Your task to perform on an android device: Add "bose soundlink" to the cart on amazon.com, then select checkout. Image 0: 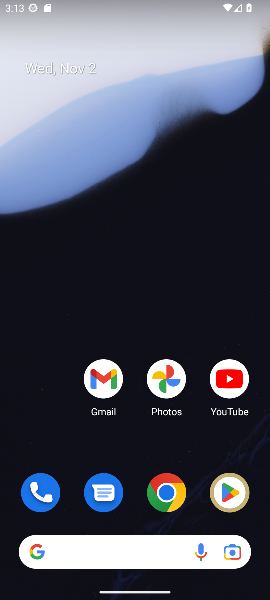
Step 0: click (167, 493)
Your task to perform on an android device: Add "bose soundlink" to the cart on amazon.com, then select checkout. Image 1: 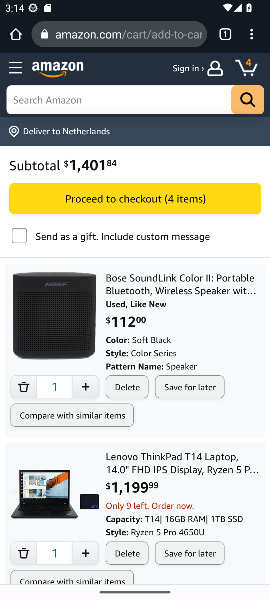
Step 1: click (122, 21)
Your task to perform on an android device: Add "bose soundlink" to the cart on amazon.com, then select checkout. Image 2: 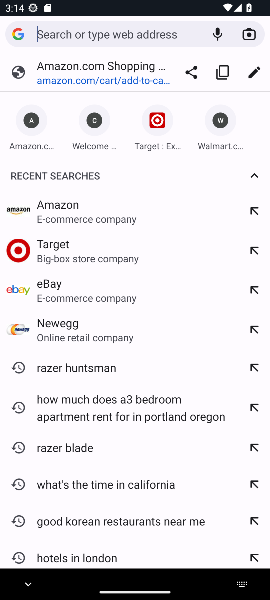
Step 2: click (66, 202)
Your task to perform on an android device: Add "bose soundlink" to the cart on amazon.com, then select checkout. Image 3: 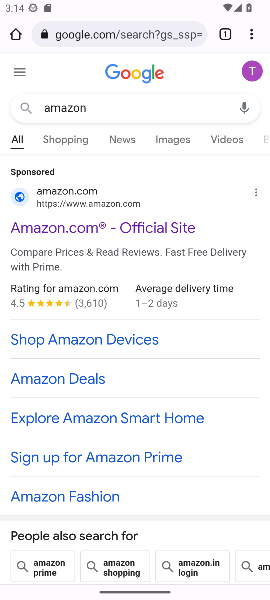
Step 3: click (53, 232)
Your task to perform on an android device: Add "bose soundlink" to the cart on amazon.com, then select checkout. Image 4: 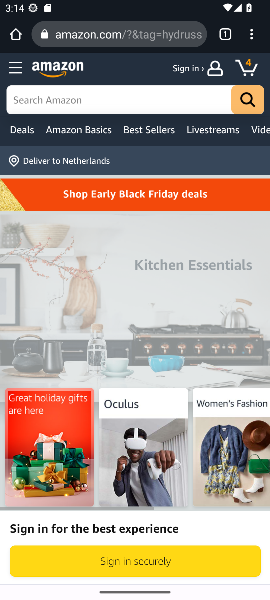
Step 4: click (90, 95)
Your task to perform on an android device: Add "bose soundlink" to the cart on amazon.com, then select checkout. Image 5: 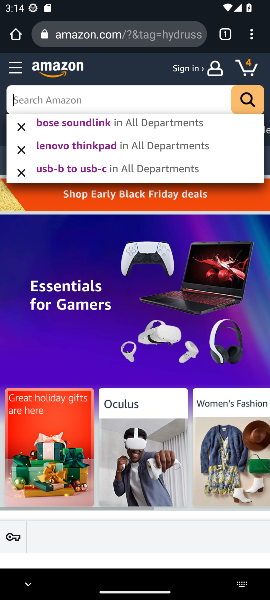
Step 5: click (68, 121)
Your task to perform on an android device: Add "bose soundlink" to the cart on amazon.com, then select checkout. Image 6: 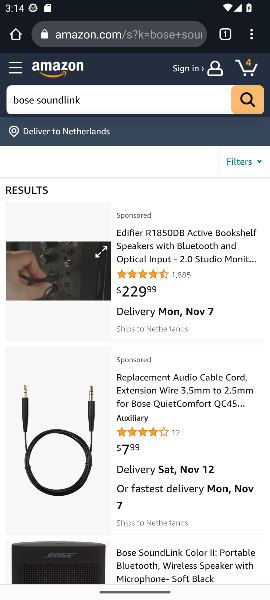
Step 6: drag from (163, 452) to (172, 239)
Your task to perform on an android device: Add "bose soundlink" to the cart on amazon.com, then select checkout. Image 7: 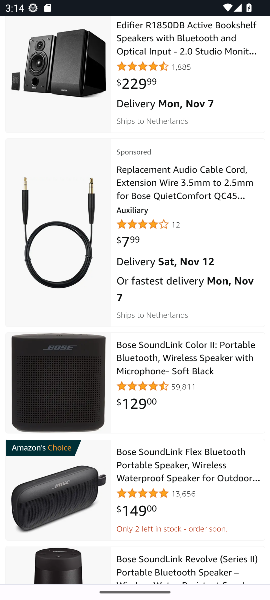
Step 7: click (149, 347)
Your task to perform on an android device: Add "bose soundlink" to the cart on amazon.com, then select checkout. Image 8: 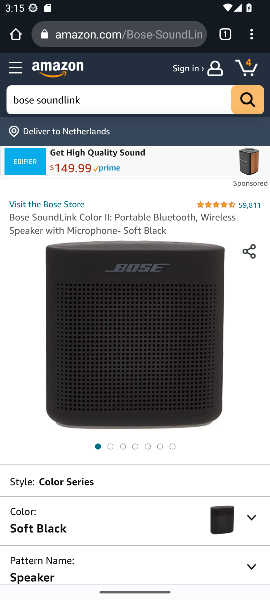
Step 8: drag from (151, 490) to (149, 265)
Your task to perform on an android device: Add "bose soundlink" to the cart on amazon.com, then select checkout. Image 9: 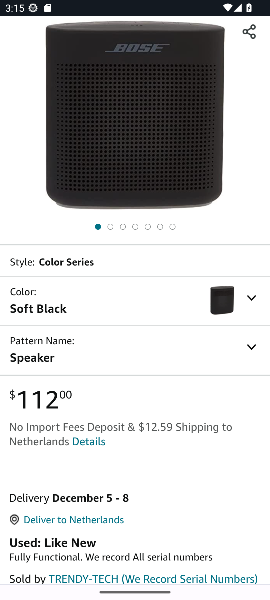
Step 9: drag from (111, 520) to (121, 263)
Your task to perform on an android device: Add "bose soundlink" to the cart on amazon.com, then select checkout. Image 10: 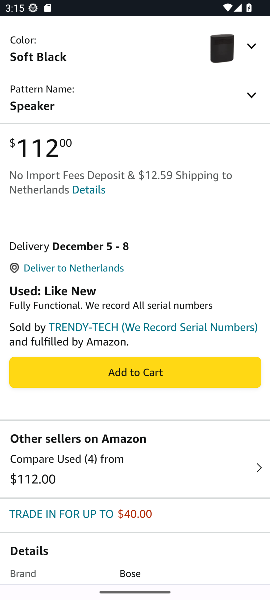
Step 10: click (135, 372)
Your task to perform on an android device: Add "bose soundlink" to the cart on amazon.com, then select checkout. Image 11: 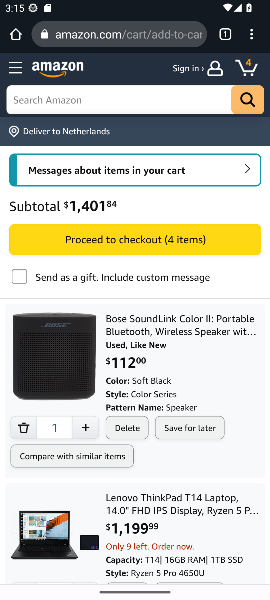
Step 11: click (120, 235)
Your task to perform on an android device: Add "bose soundlink" to the cart on amazon.com, then select checkout. Image 12: 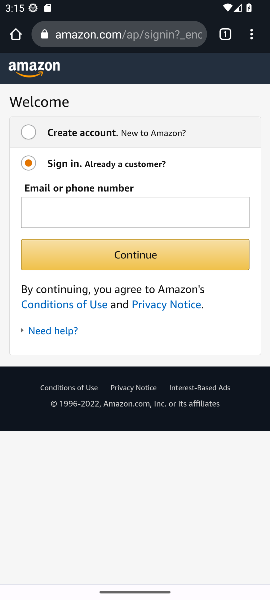
Step 12: task complete